Your task to perform on an android device: Clear all items from cart on costco. Search for usb-b on costco, select the first entry, add it to the cart, then select checkout. Image 0: 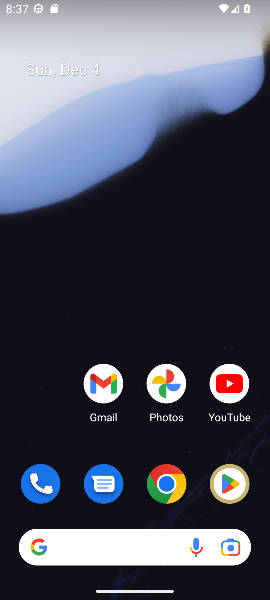
Step 0: click (170, 485)
Your task to perform on an android device: Clear all items from cart on costco. Search for usb-b on costco, select the first entry, add it to the cart, then select checkout. Image 1: 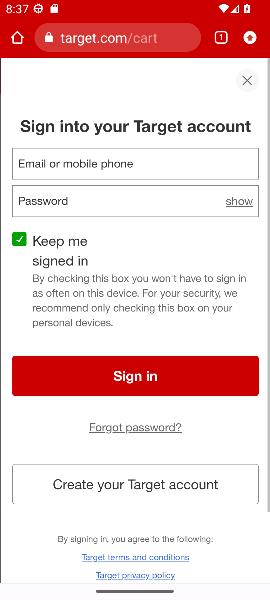
Step 1: click (117, 34)
Your task to perform on an android device: Clear all items from cart on costco. Search for usb-b on costco, select the first entry, add it to the cart, then select checkout. Image 2: 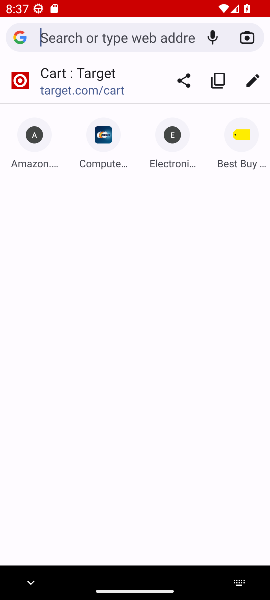
Step 2: type "costco.com"
Your task to perform on an android device: Clear all items from cart on costco. Search for usb-b on costco, select the first entry, add it to the cart, then select checkout. Image 3: 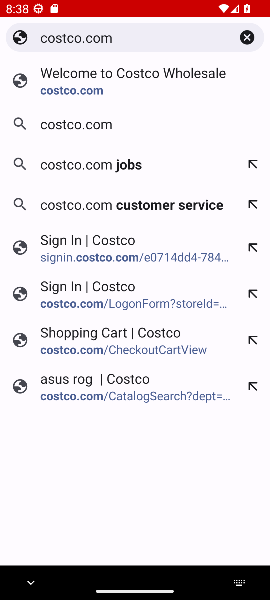
Step 3: click (67, 95)
Your task to perform on an android device: Clear all items from cart on costco. Search for usb-b on costco, select the first entry, add it to the cart, then select checkout. Image 4: 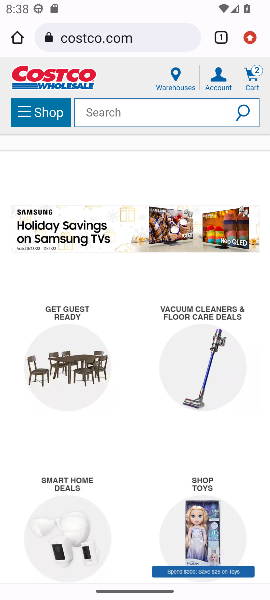
Step 4: click (249, 74)
Your task to perform on an android device: Clear all items from cart on costco. Search for usb-b on costco, select the first entry, add it to the cart, then select checkout. Image 5: 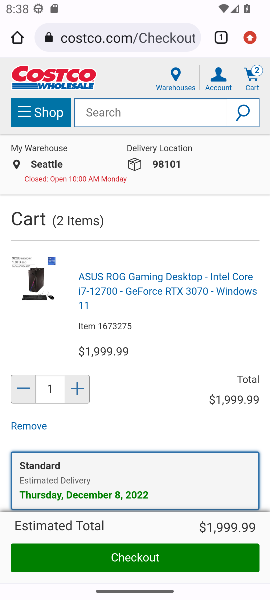
Step 5: drag from (158, 432) to (150, 106)
Your task to perform on an android device: Clear all items from cart on costco. Search for usb-b on costco, select the first entry, add it to the cart, then select checkout. Image 6: 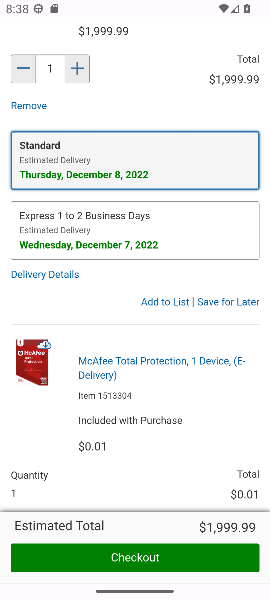
Step 6: click (233, 305)
Your task to perform on an android device: Clear all items from cart on costco. Search for usb-b on costco, select the first entry, add it to the cart, then select checkout. Image 7: 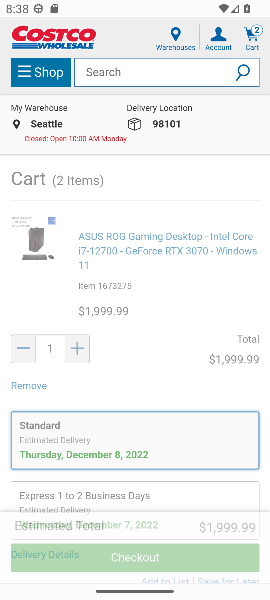
Step 7: drag from (161, 250) to (149, 160)
Your task to perform on an android device: Clear all items from cart on costco. Search for usb-b on costco, select the first entry, add it to the cart, then select checkout. Image 8: 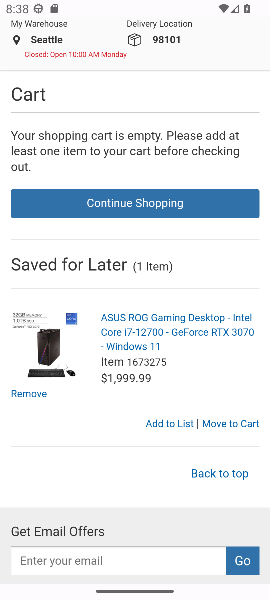
Step 8: drag from (170, 305) to (126, 466)
Your task to perform on an android device: Clear all items from cart on costco. Search for usb-b on costco, select the first entry, add it to the cart, then select checkout. Image 9: 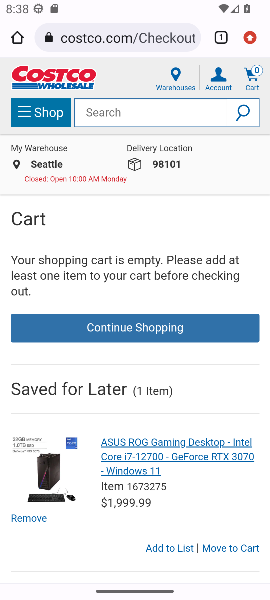
Step 9: click (123, 109)
Your task to perform on an android device: Clear all items from cart on costco. Search for usb-b on costco, select the first entry, add it to the cart, then select checkout. Image 10: 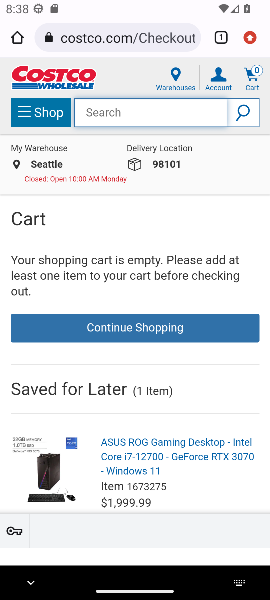
Step 10: type " usb-b "
Your task to perform on an android device: Clear all items from cart on costco. Search for usb-b on costco, select the first entry, add it to the cart, then select checkout. Image 11: 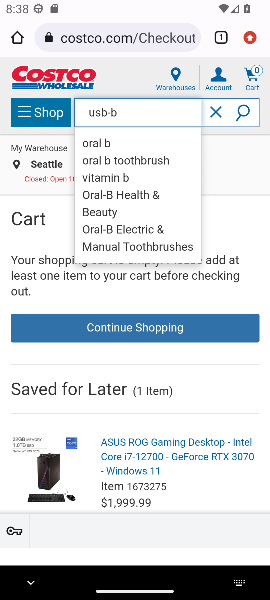
Step 11: click (244, 116)
Your task to perform on an android device: Clear all items from cart on costco. Search for usb-b on costco, select the first entry, add it to the cart, then select checkout. Image 12: 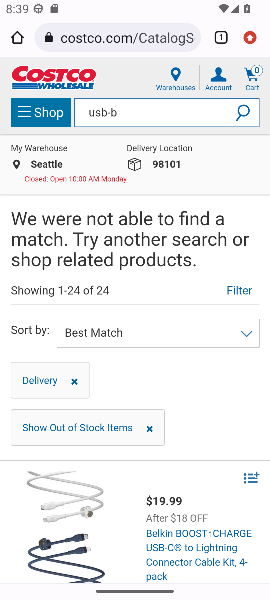
Step 12: task complete